Your task to perform on an android device: open app "PUBG MOBILE" (install if not already installed) Image 0: 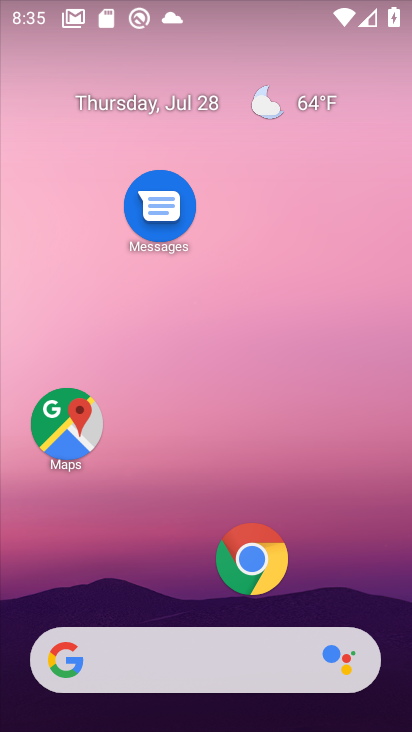
Step 0: drag from (147, 537) to (178, 17)
Your task to perform on an android device: open app "PUBG MOBILE" (install if not already installed) Image 1: 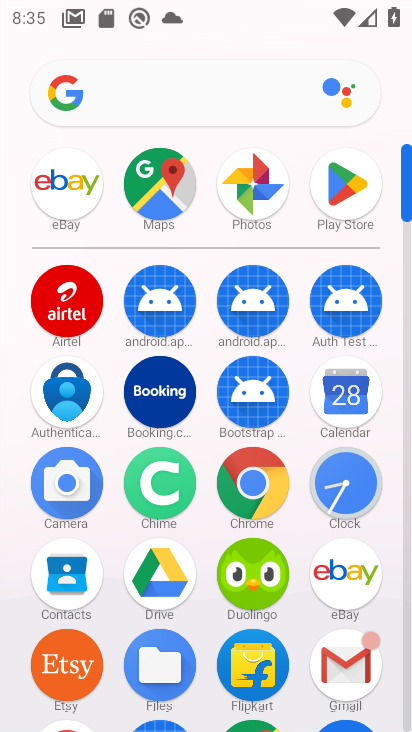
Step 1: click (351, 203)
Your task to perform on an android device: open app "PUBG MOBILE" (install if not already installed) Image 2: 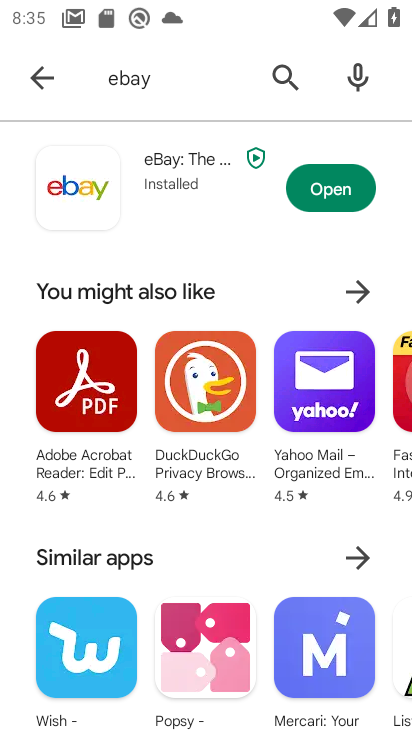
Step 2: click (141, 67)
Your task to perform on an android device: open app "PUBG MOBILE" (install if not already installed) Image 3: 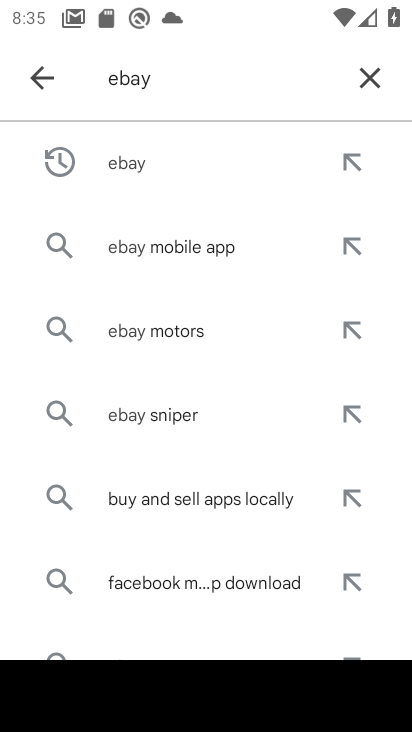
Step 3: click (366, 77)
Your task to perform on an android device: open app "PUBG MOBILE" (install if not already installed) Image 4: 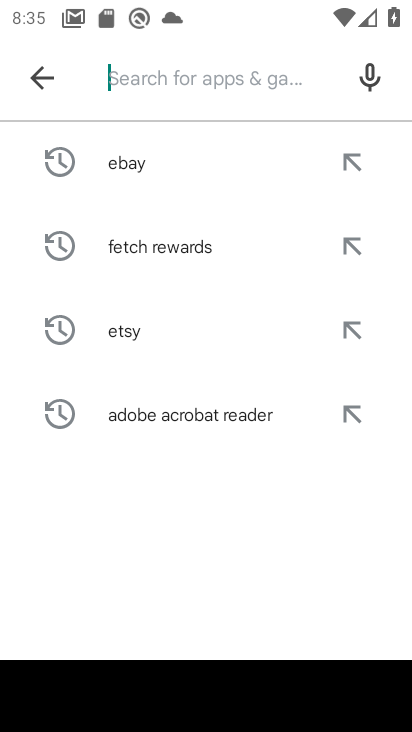
Step 4: type "pubg"
Your task to perform on an android device: open app "PUBG MOBILE" (install if not already installed) Image 5: 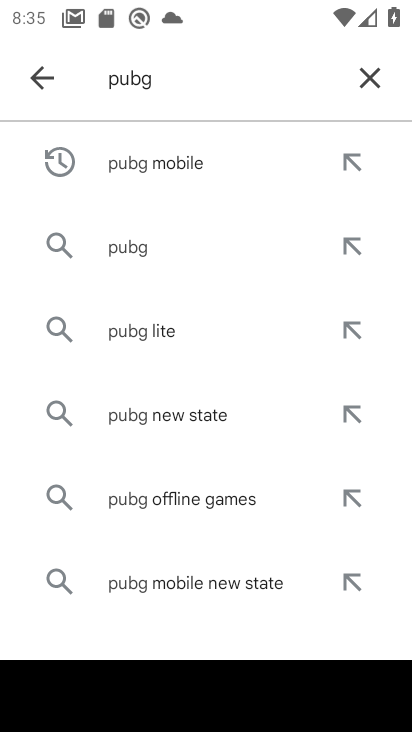
Step 5: click (160, 166)
Your task to perform on an android device: open app "PUBG MOBILE" (install if not already installed) Image 6: 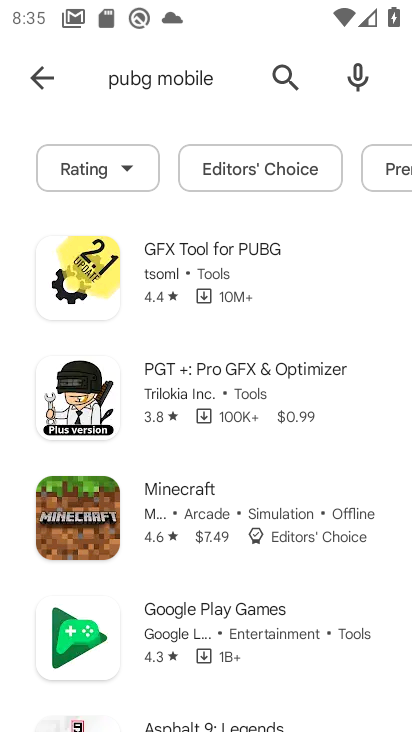
Step 6: task complete